Your task to perform on an android device: toggle javascript in the chrome app Image 0: 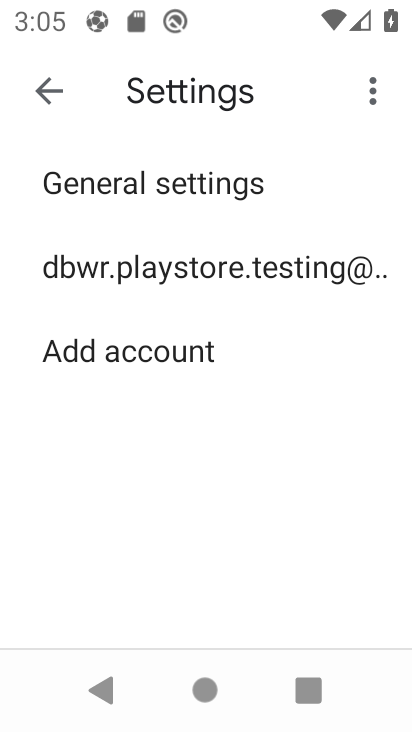
Step 0: press home button
Your task to perform on an android device: toggle javascript in the chrome app Image 1: 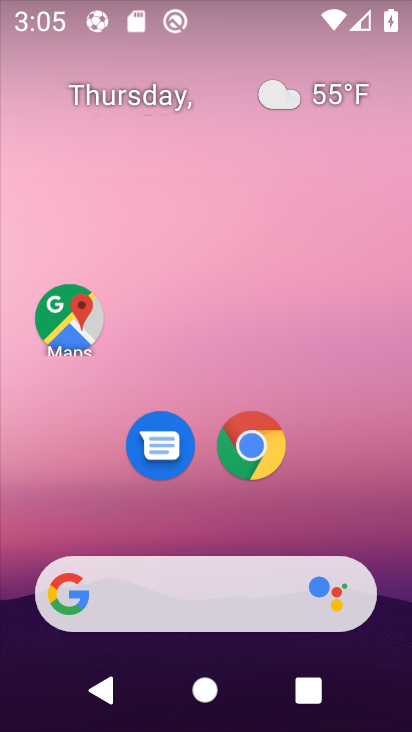
Step 1: click (252, 473)
Your task to perform on an android device: toggle javascript in the chrome app Image 2: 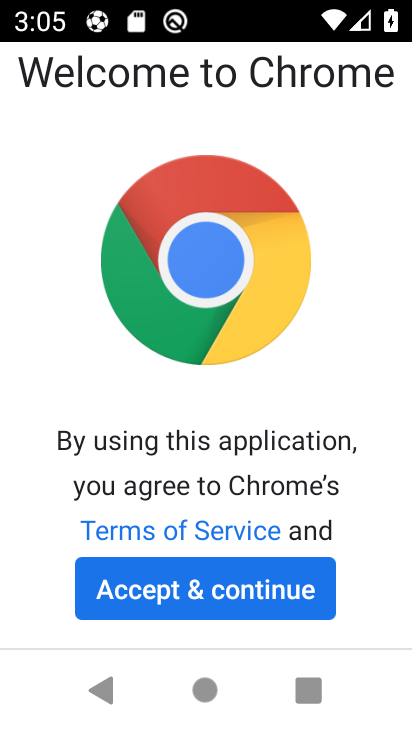
Step 2: click (259, 597)
Your task to perform on an android device: toggle javascript in the chrome app Image 3: 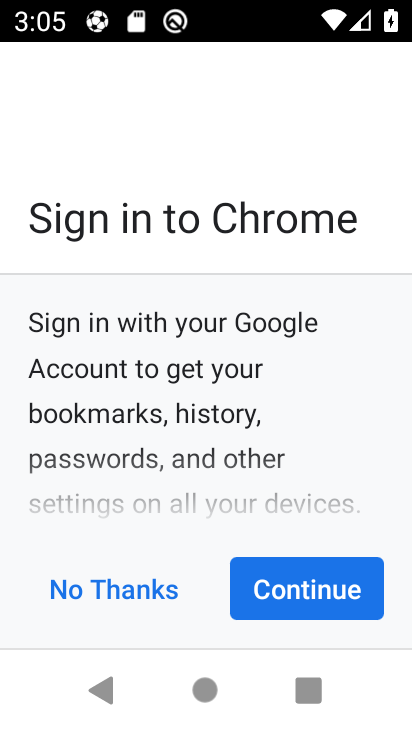
Step 3: click (357, 600)
Your task to perform on an android device: toggle javascript in the chrome app Image 4: 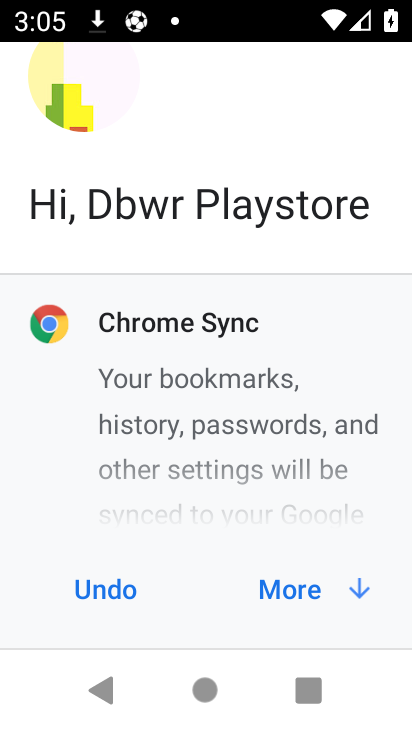
Step 4: click (309, 591)
Your task to perform on an android device: toggle javascript in the chrome app Image 5: 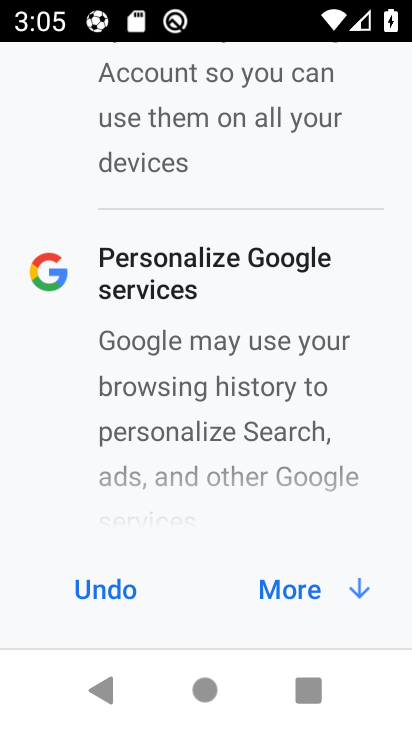
Step 5: click (300, 594)
Your task to perform on an android device: toggle javascript in the chrome app Image 6: 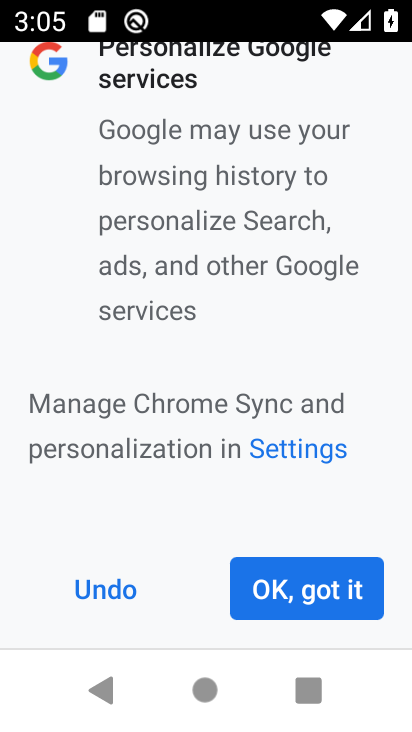
Step 6: click (303, 594)
Your task to perform on an android device: toggle javascript in the chrome app Image 7: 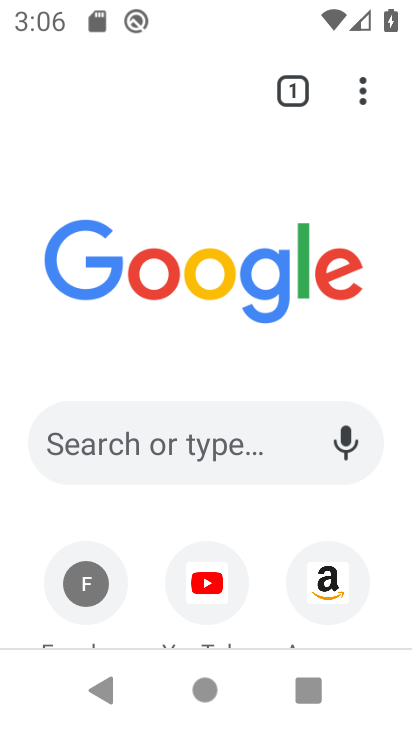
Step 7: drag from (366, 93) to (219, 488)
Your task to perform on an android device: toggle javascript in the chrome app Image 8: 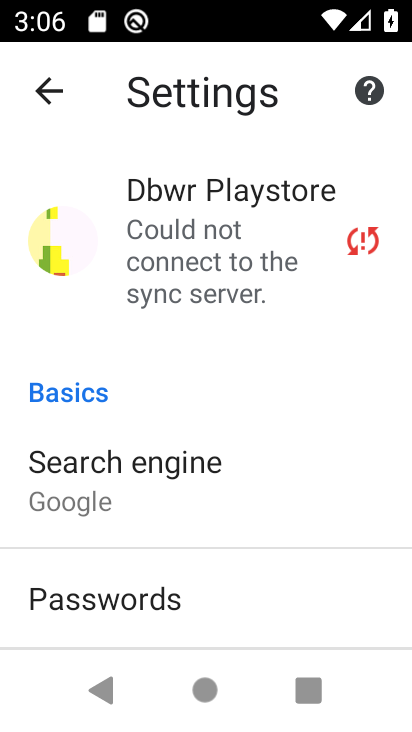
Step 8: drag from (214, 568) to (248, 215)
Your task to perform on an android device: toggle javascript in the chrome app Image 9: 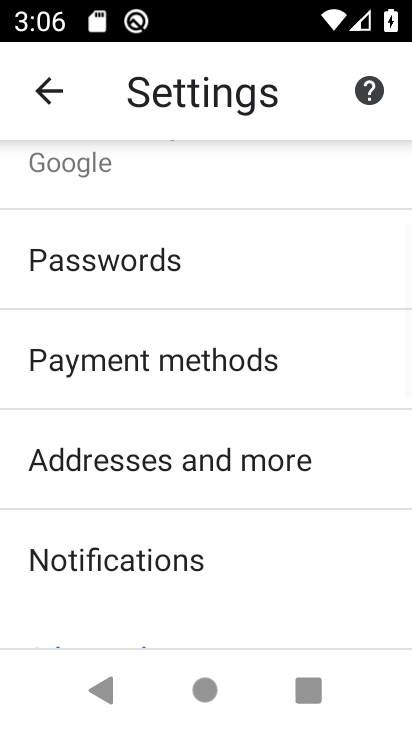
Step 9: drag from (150, 475) to (126, 236)
Your task to perform on an android device: toggle javascript in the chrome app Image 10: 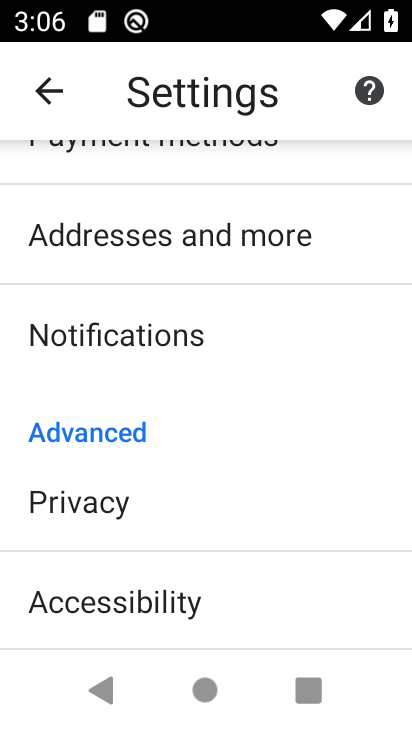
Step 10: drag from (113, 597) to (184, 233)
Your task to perform on an android device: toggle javascript in the chrome app Image 11: 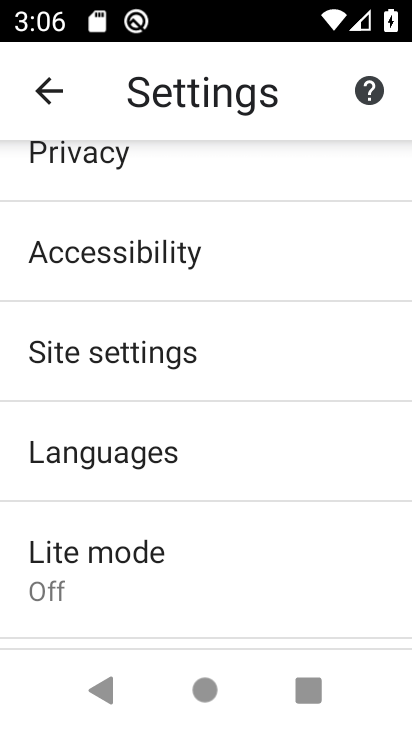
Step 11: click (138, 369)
Your task to perform on an android device: toggle javascript in the chrome app Image 12: 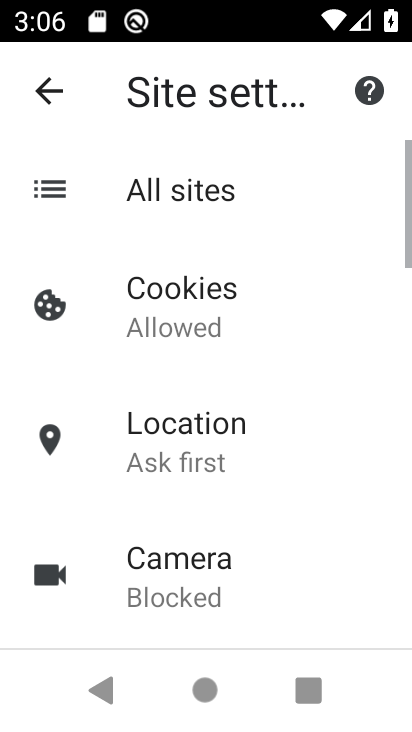
Step 12: drag from (239, 529) to (231, 211)
Your task to perform on an android device: toggle javascript in the chrome app Image 13: 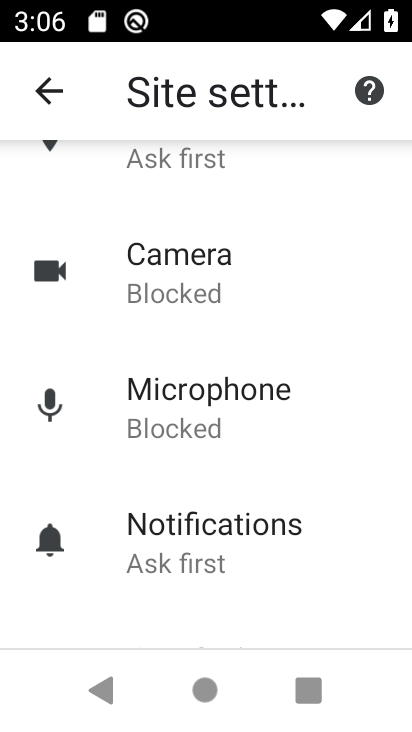
Step 13: drag from (235, 540) to (217, 312)
Your task to perform on an android device: toggle javascript in the chrome app Image 14: 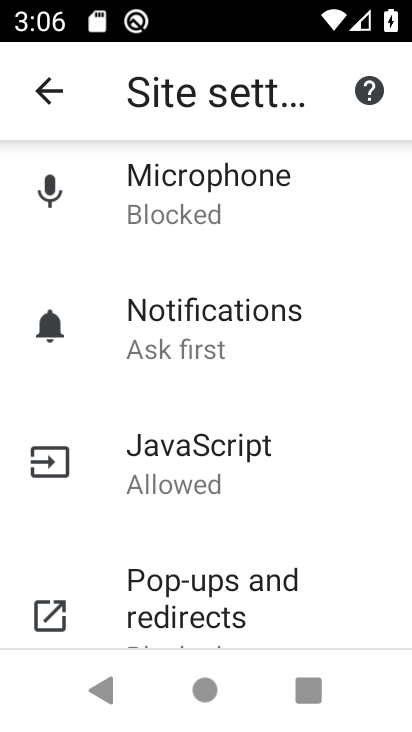
Step 14: click (222, 477)
Your task to perform on an android device: toggle javascript in the chrome app Image 15: 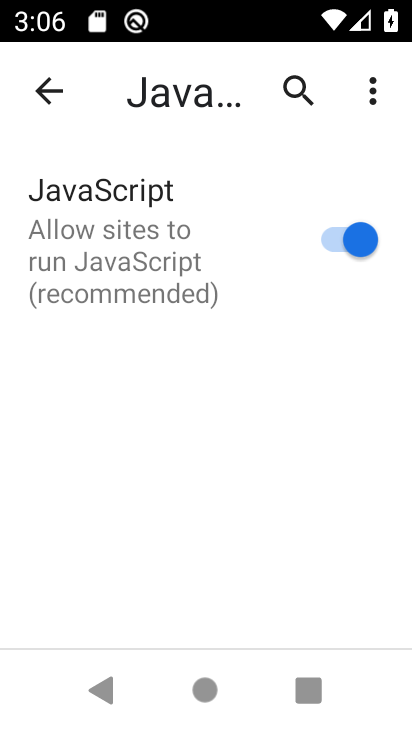
Step 15: click (349, 251)
Your task to perform on an android device: toggle javascript in the chrome app Image 16: 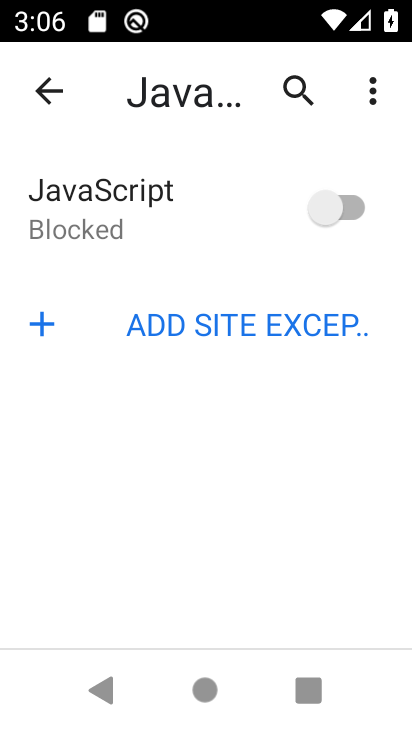
Step 16: task complete